Your task to perform on an android device: Go to battery settings Image 0: 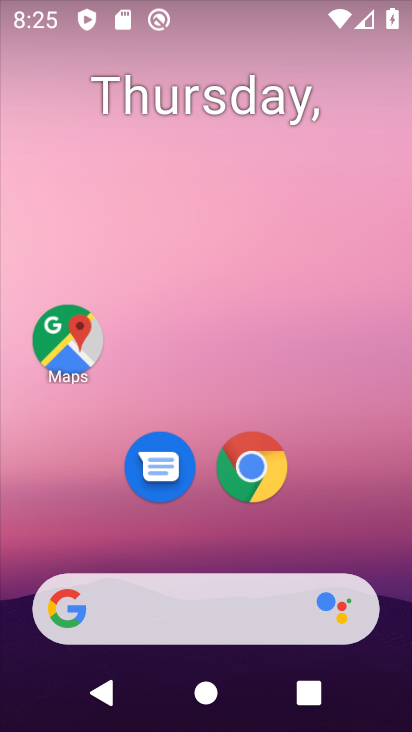
Step 0: drag from (329, 525) to (241, 95)
Your task to perform on an android device: Go to battery settings Image 1: 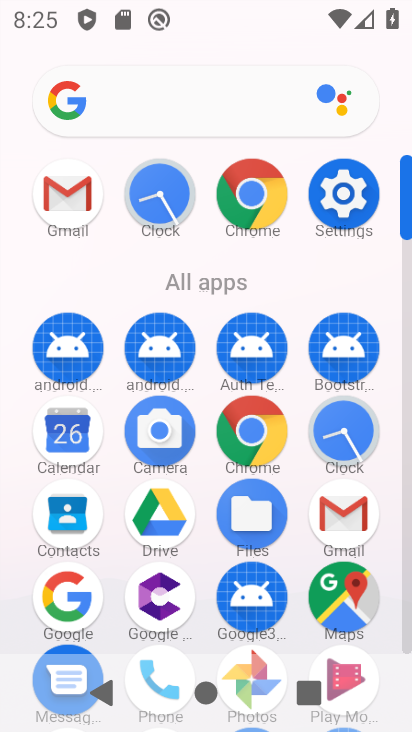
Step 1: click (337, 196)
Your task to perform on an android device: Go to battery settings Image 2: 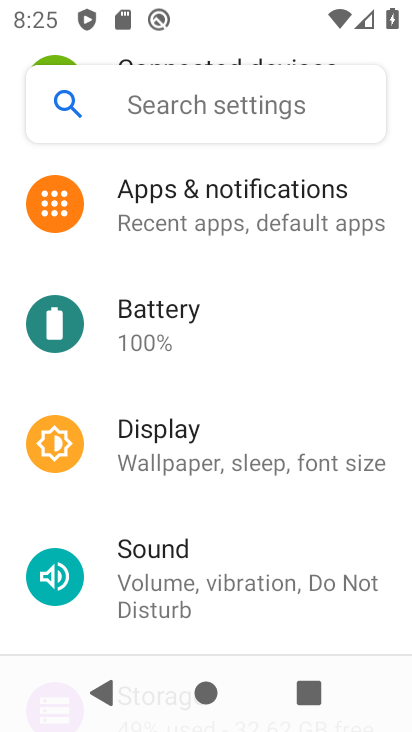
Step 2: click (153, 315)
Your task to perform on an android device: Go to battery settings Image 3: 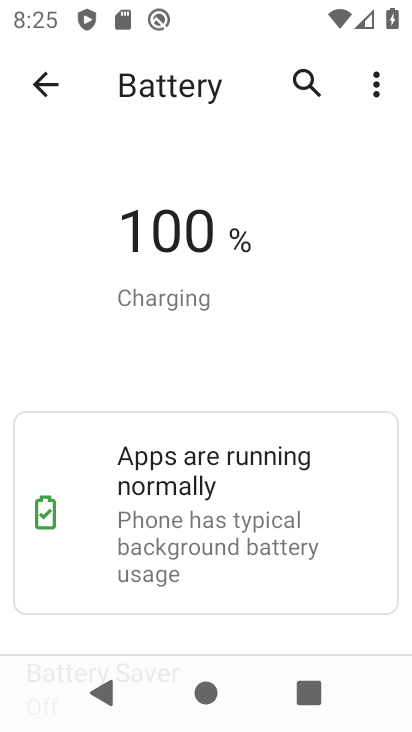
Step 3: task complete